Your task to perform on an android device: Open eBay Image 0: 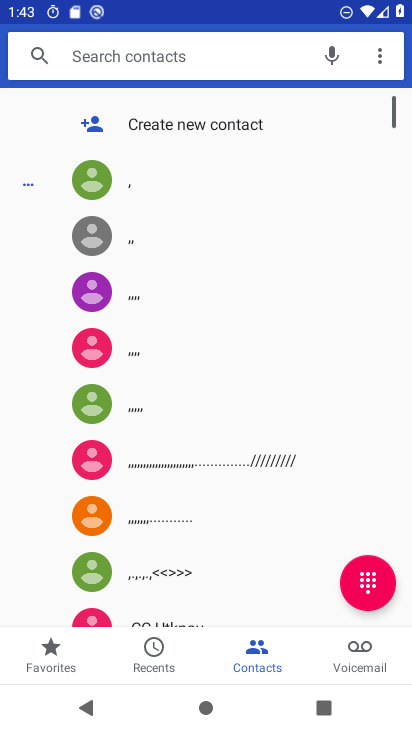
Step 0: press home button
Your task to perform on an android device: Open eBay Image 1: 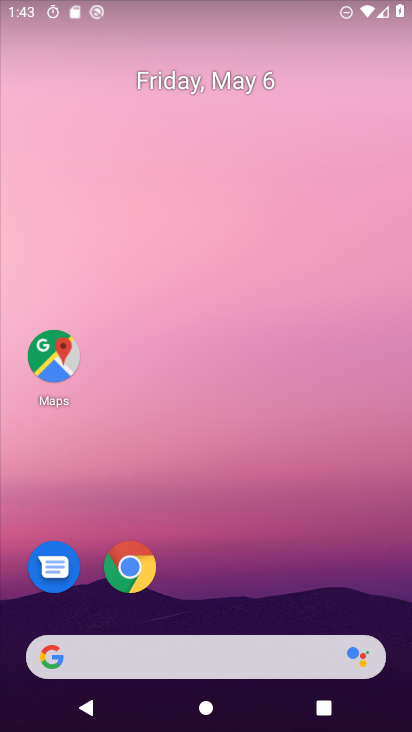
Step 1: drag from (263, 699) to (244, 250)
Your task to perform on an android device: Open eBay Image 2: 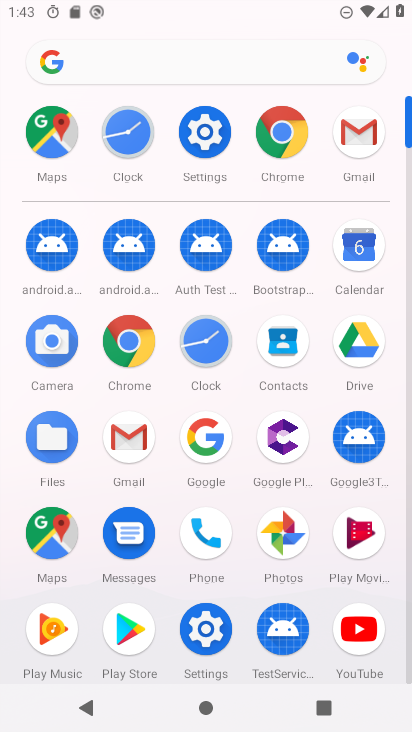
Step 2: click (293, 116)
Your task to perform on an android device: Open eBay Image 3: 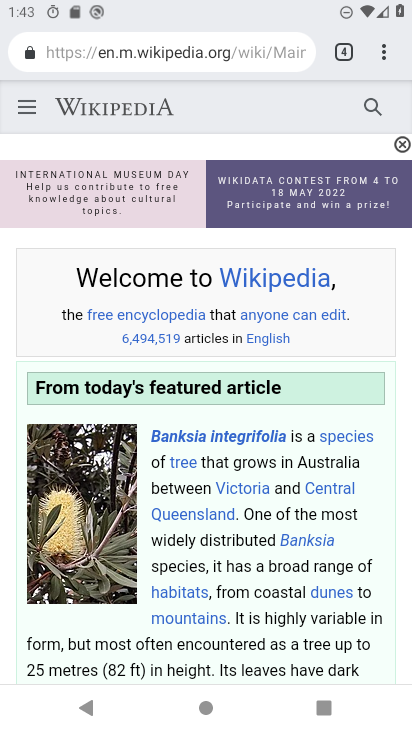
Step 3: click (349, 59)
Your task to perform on an android device: Open eBay Image 4: 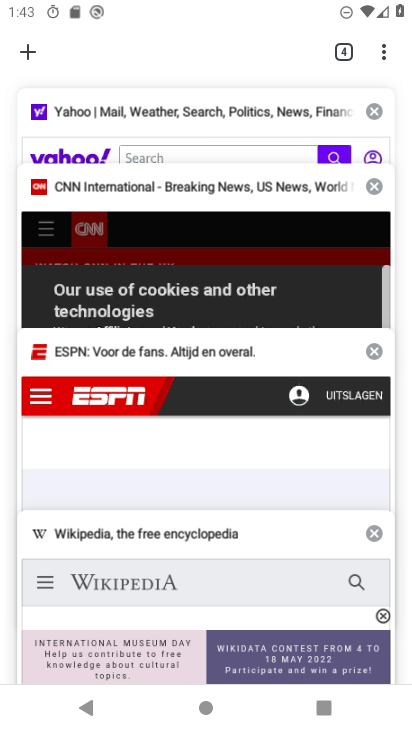
Step 4: click (25, 56)
Your task to perform on an android device: Open eBay Image 5: 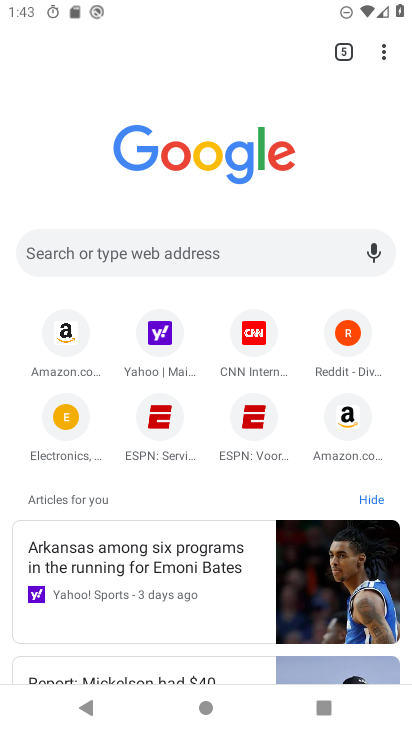
Step 5: click (154, 259)
Your task to perform on an android device: Open eBay Image 6: 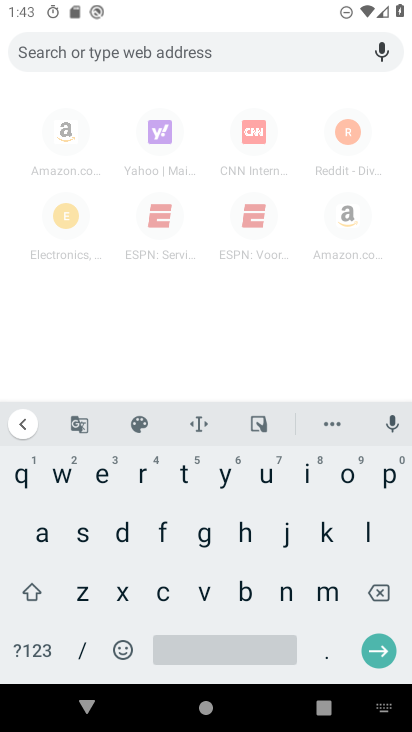
Step 6: click (104, 481)
Your task to perform on an android device: Open eBay Image 7: 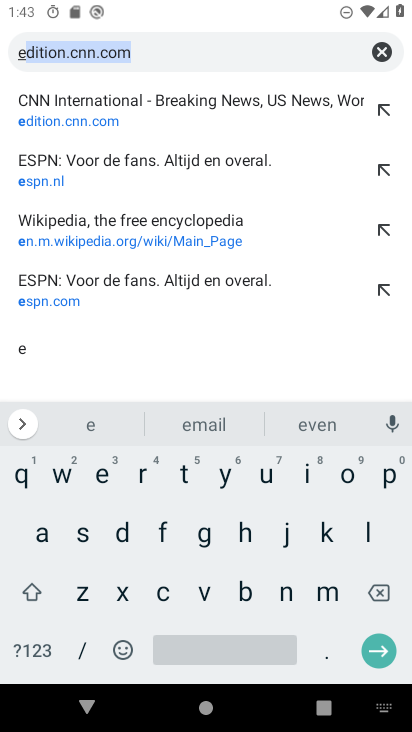
Step 7: click (243, 596)
Your task to perform on an android device: Open eBay Image 8: 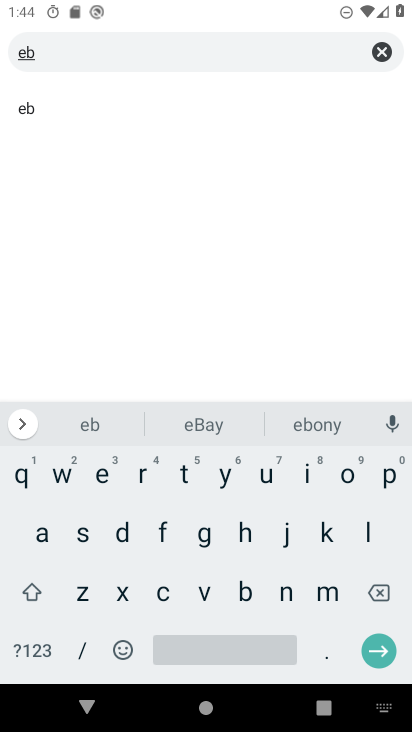
Step 8: click (39, 532)
Your task to perform on an android device: Open eBay Image 9: 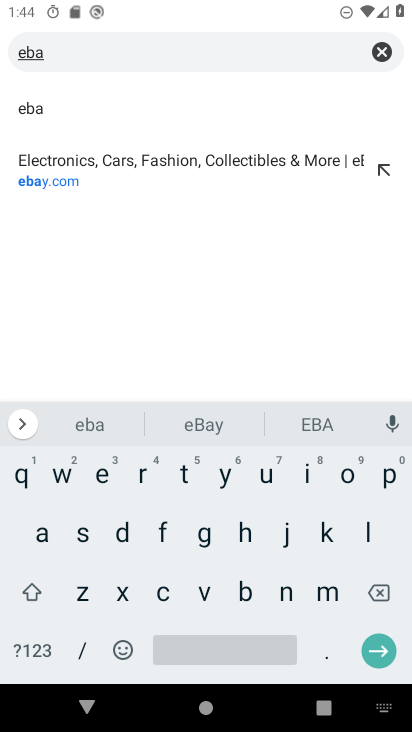
Step 9: click (196, 425)
Your task to perform on an android device: Open eBay Image 10: 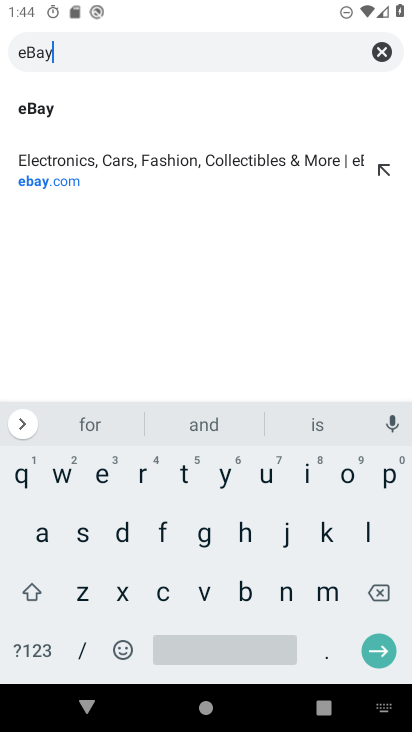
Step 10: click (384, 648)
Your task to perform on an android device: Open eBay Image 11: 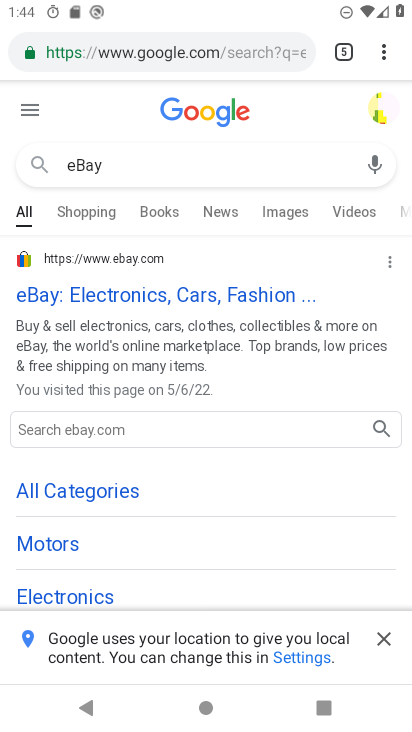
Step 11: click (152, 308)
Your task to perform on an android device: Open eBay Image 12: 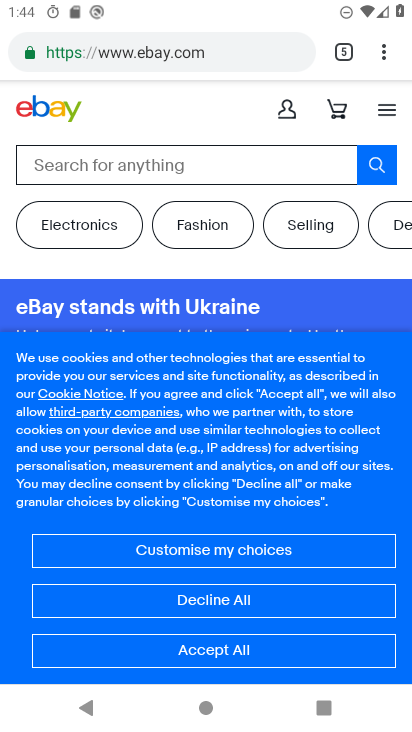
Step 12: task complete